Your task to perform on an android device: Open Google Maps Image 0: 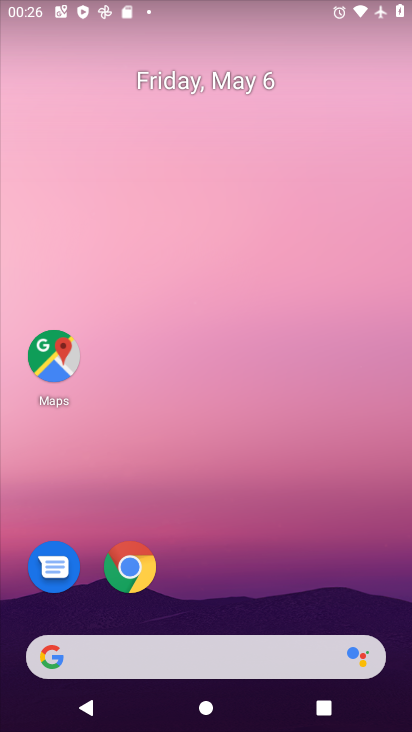
Step 0: drag from (239, 613) to (180, 139)
Your task to perform on an android device: Open Google Maps Image 1: 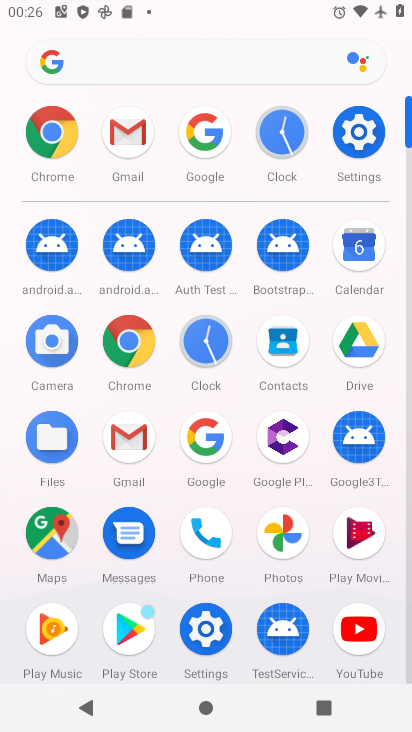
Step 1: click (50, 546)
Your task to perform on an android device: Open Google Maps Image 2: 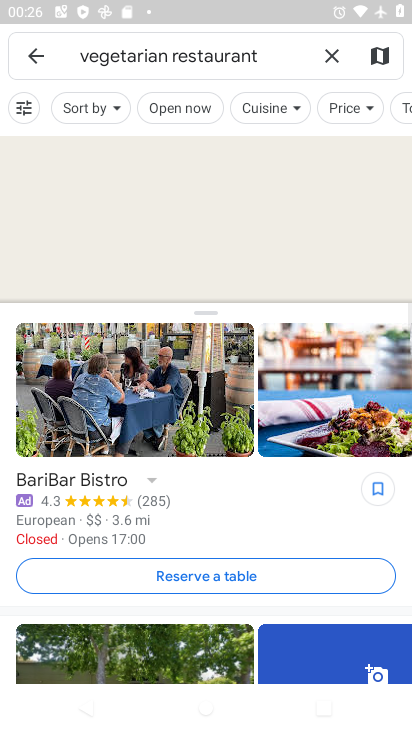
Step 2: task complete